Your task to perform on an android device: see tabs open on other devices in the chrome app Image 0: 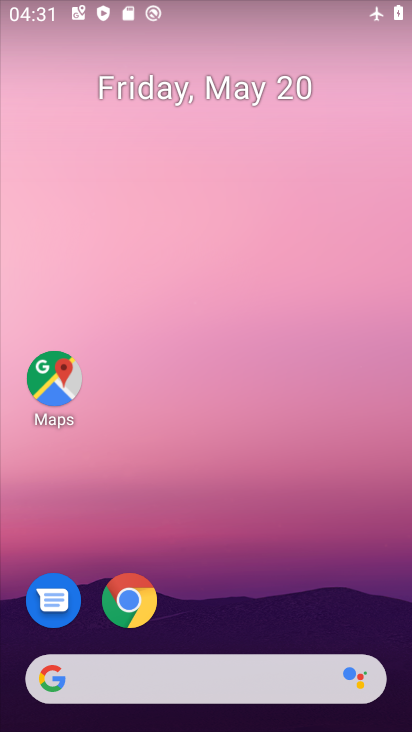
Step 0: drag from (224, 569) to (149, 0)
Your task to perform on an android device: see tabs open on other devices in the chrome app Image 1: 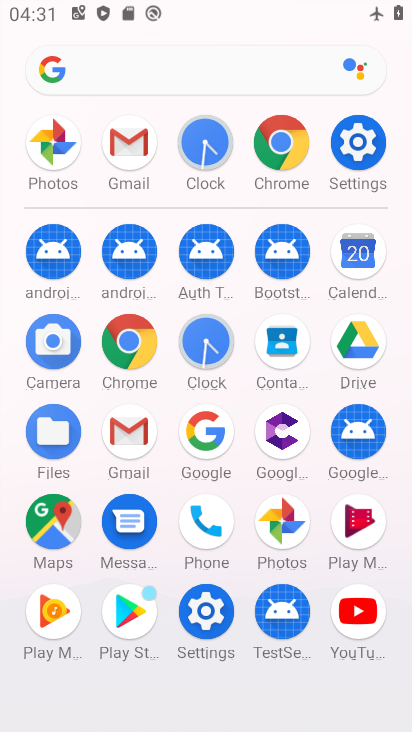
Step 1: drag from (7, 544) to (17, 218)
Your task to perform on an android device: see tabs open on other devices in the chrome app Image 2: 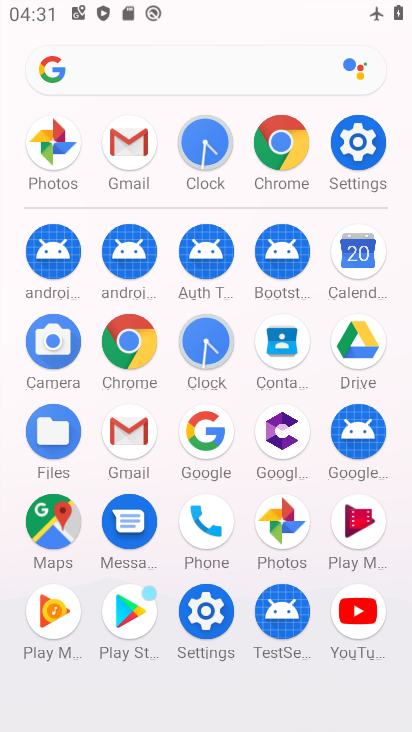
Step 2: click (127, 342)
Your task to perform on an android device: see tabs open on other devices in the chrome app Image 3: 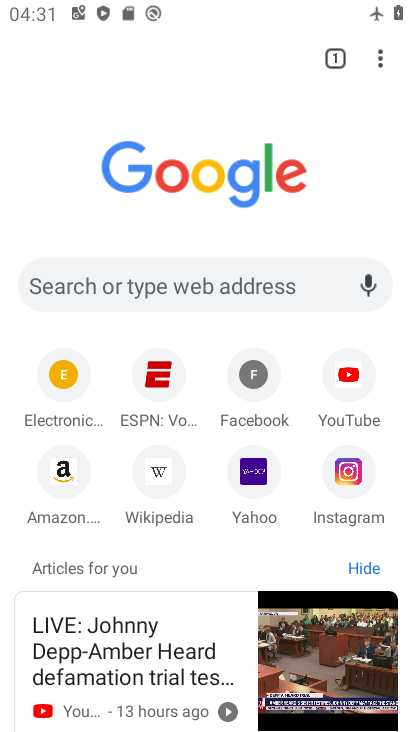
Step 3: drag from (381, 64) to (208, 357)
Your task to perform on an android device: see tabs open on other devices in the chrome app Image 4: 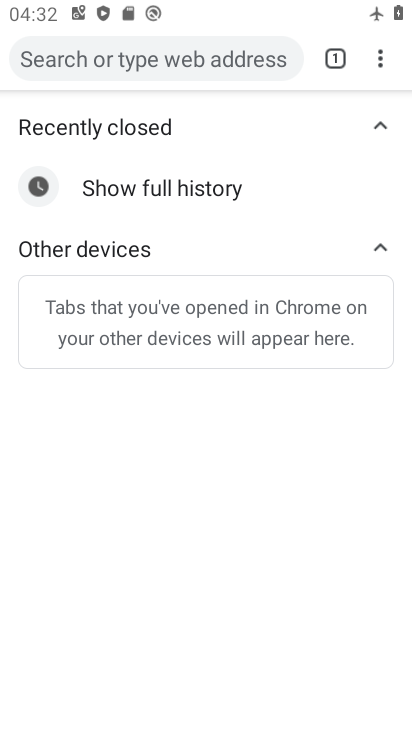
Step 4: drag from (377, 68) to (8, 81)
Your task to perform on an android device: see tabs open on other devices in the chrome app Image 5: 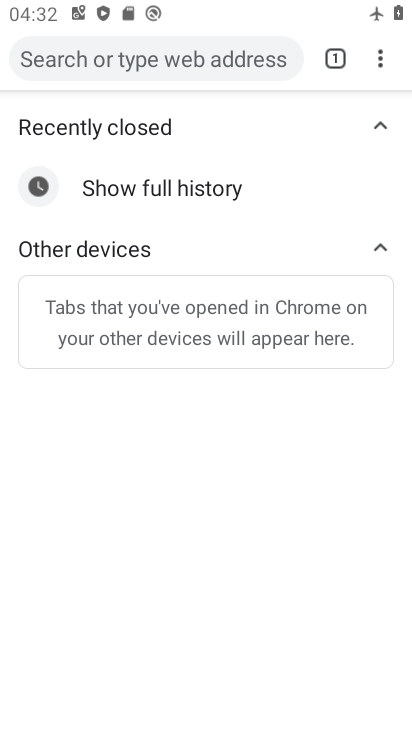
Step 5: click (8, 81)
Your task to perform on an android device: see tabs open on other devices in the chrome app Image 6: 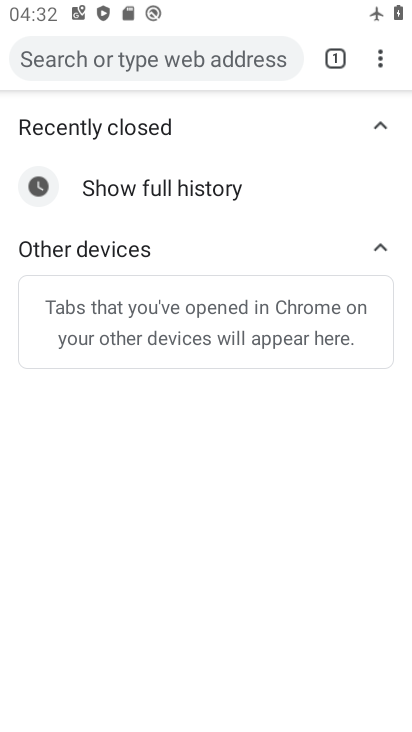
Step 6: task complete